Your task to perform on an android device: turn off picture-in-picture Image 0: 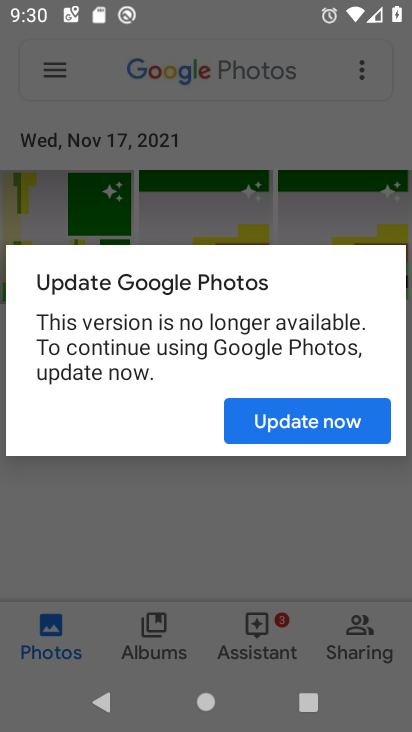
Step 0: press home button
Your task to perform on an android device: turn off picture-in-picture Image 1: 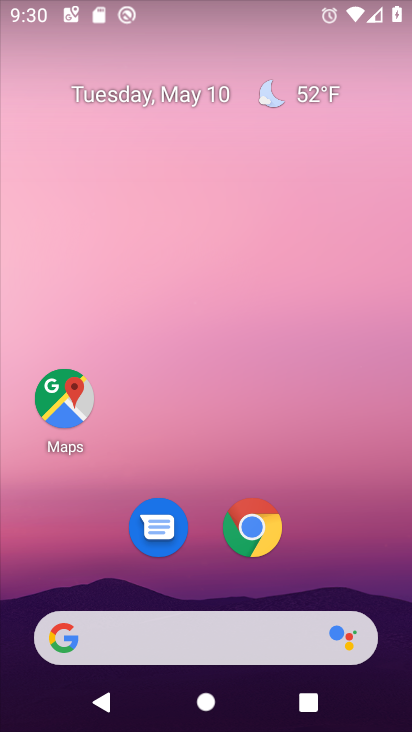
Step 1: drag from (316, 506) to (122, 204)
Your task to perform on an android device: turn off picture-in-picture Image 2: 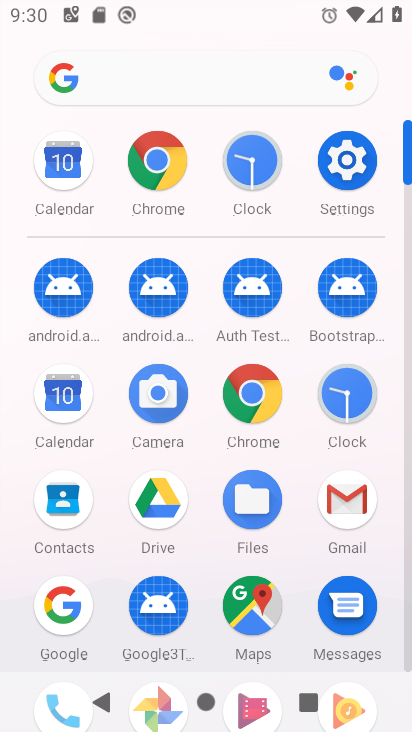
Step 2: click (344, 167)
Your task to perform on an android device: turn off picture-in-picture Image 3: 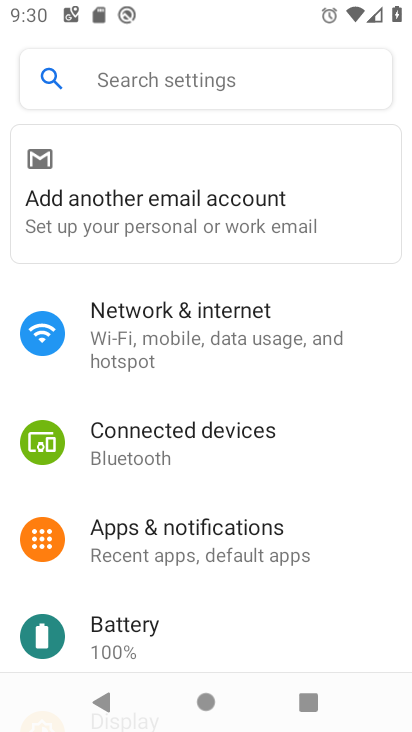
Step 3: click (213, 539)
Your task to perform on an android device: turn off picture-in-picture Image 4: 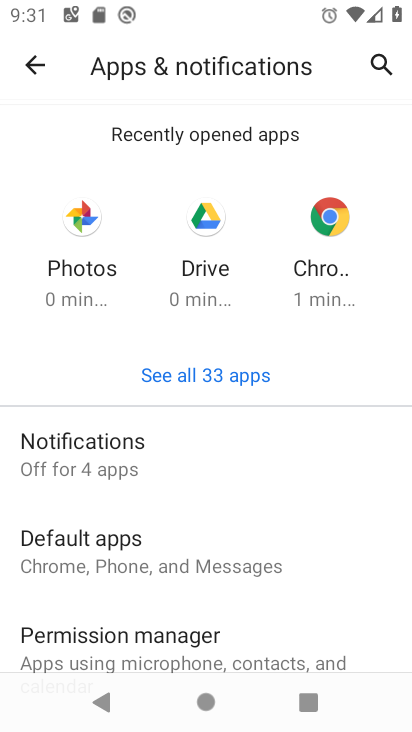
Step 4: drag from (168, 634) to (156, 393)
Your task to perform on an android device: turn off picture-in-picture Image 5: 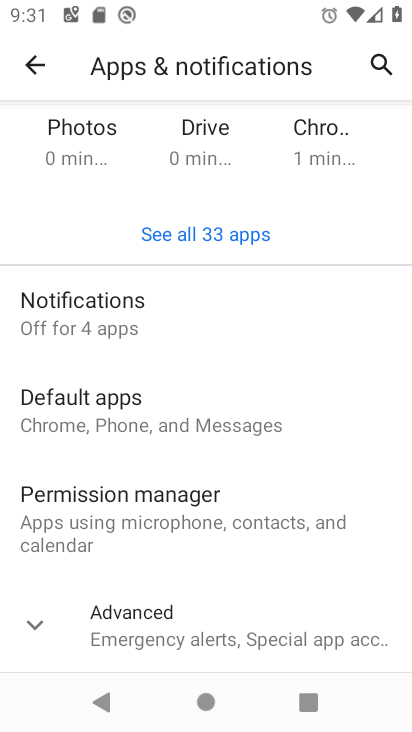
Step 5: click (134, 640)
Your task to perform on an android device: turn off picture-in-picture Image 6: 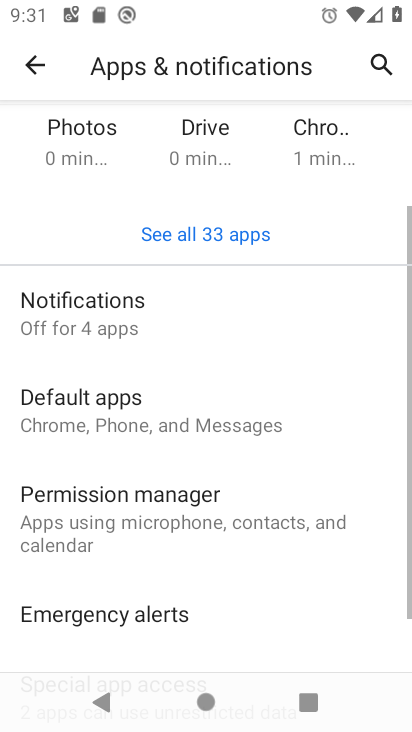
Step 6: drag from (134, 640) to (148, 301)
Your task to perform on an android device: turn off picture-in-picture Image 7: 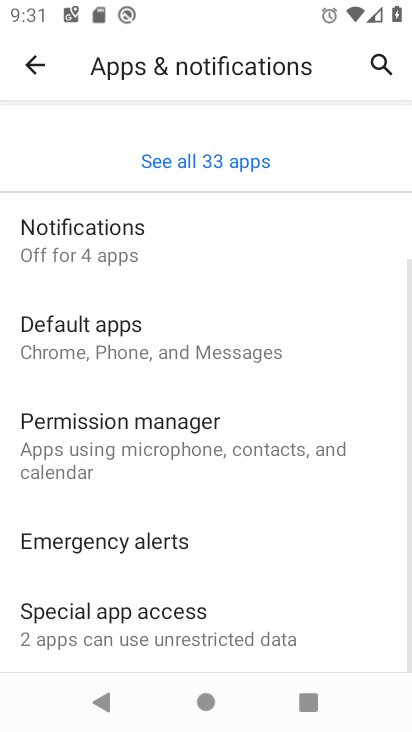
Step 7: click (128, 625)
Your task to perform on an android device: turn off picture-in-picture Image 8: 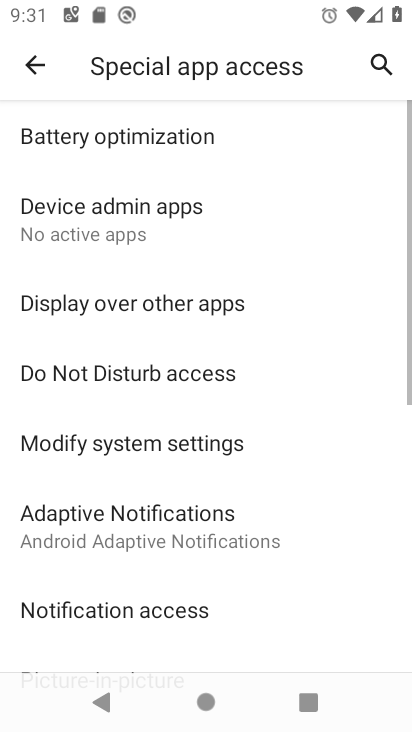
Step 8: drag from (114, 625) to (97, 406)
Your task to perform on an android device: turn off picture-in-picture Image 9: 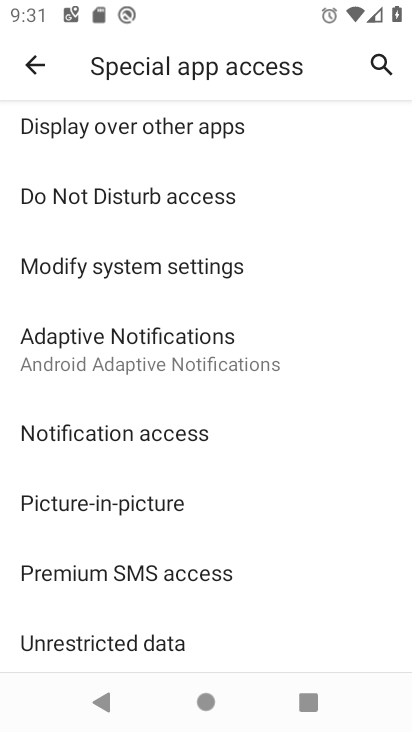
Step 9: click (88, 505)
Your task to perform on an android device: turn off picture-in-picture Image 10: 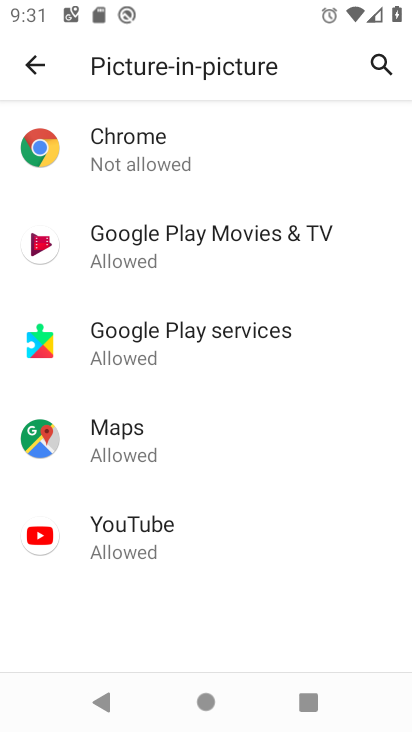
Step 10: click (138, 268)
Your task to perform on an android device: turn off picture-in-picture Image 11: 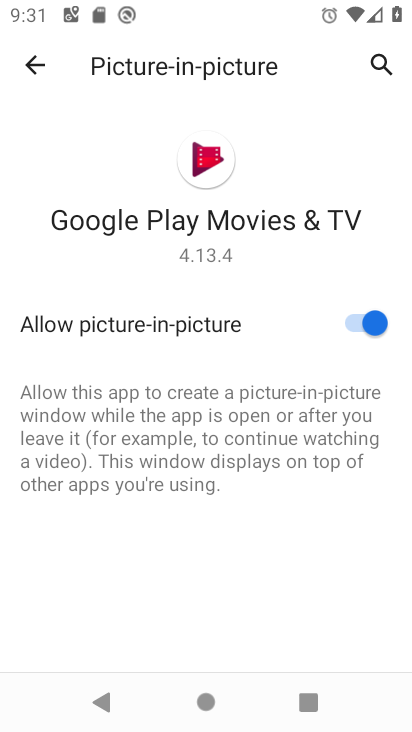
Step 11: click (373, 324)
Your task to perform on an android device: turn off picture-in-picture Image 12: 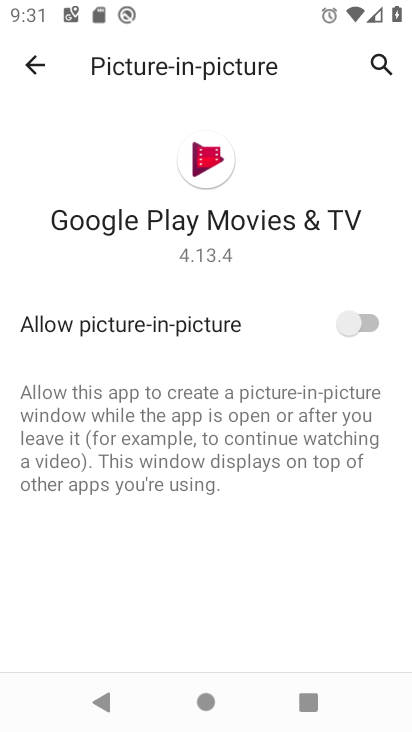
Step 12: task complete